Your task to perform on an android device: open chrome privacy settings Image 0: 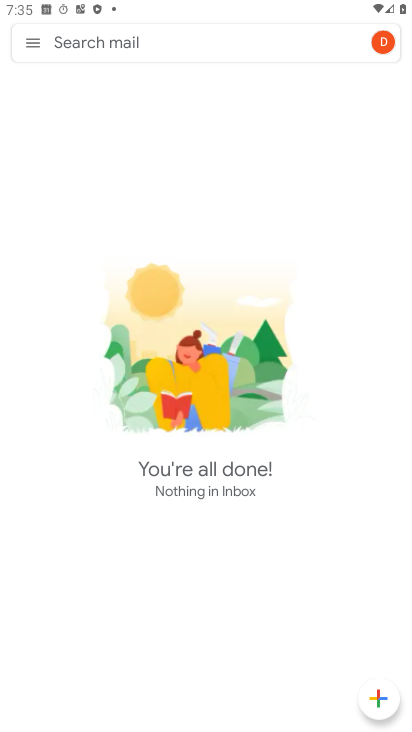
Step 0: press home button
Your task to perform on an android device: open chrome privacy settings Image 1: 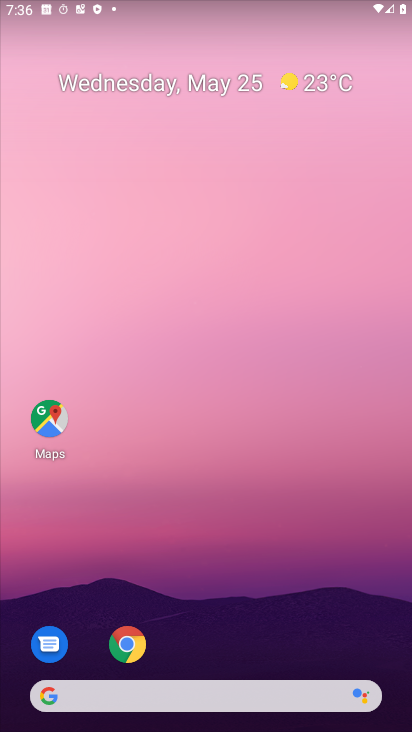
Step 1: drag from (220, 711) to (296, 50)
Your task to perform on an android device: open chrome privacy settings Image 2: 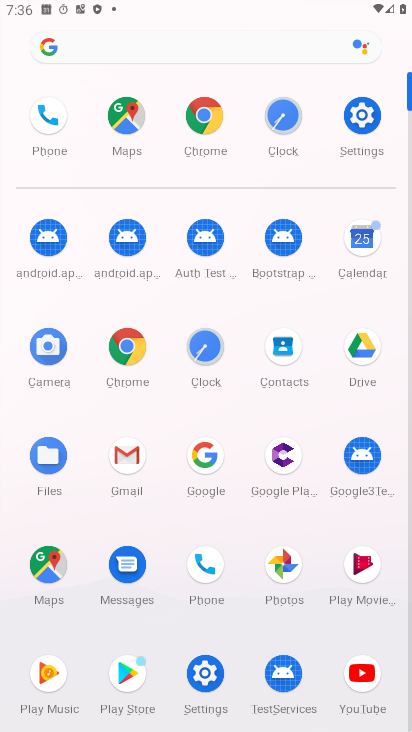
Step 2: click (199, 110)
Your task to perform on an android device: open chrome privacy settings Image 3: 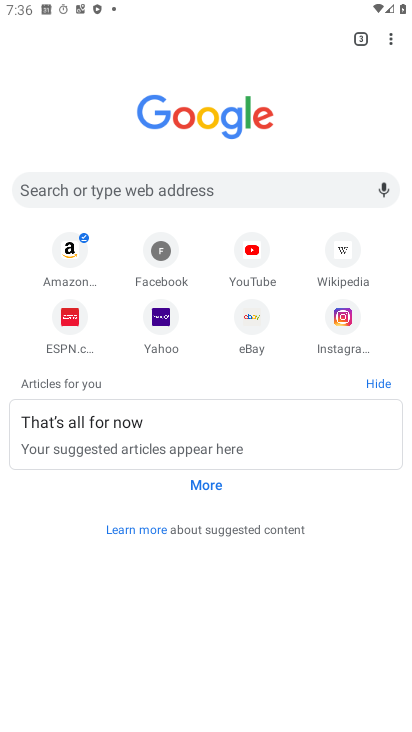
Step 3: click (392, 41)
Your task to perform on an android device: open chrome privacy settings Image 4: 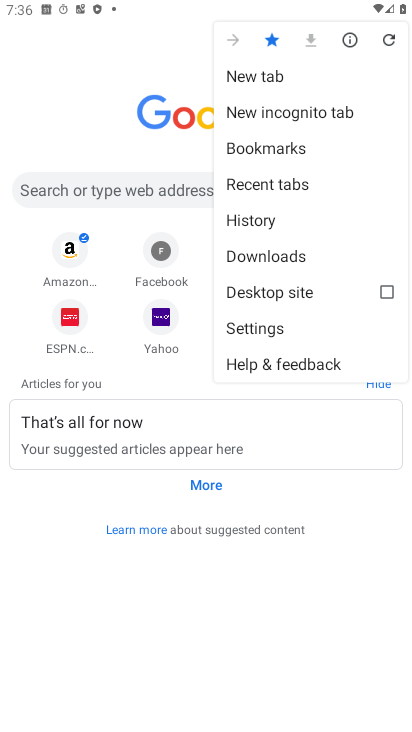
Step 4: click (276, 320)
Your task to perform on an android device: open chrome privacy settings Image 5: 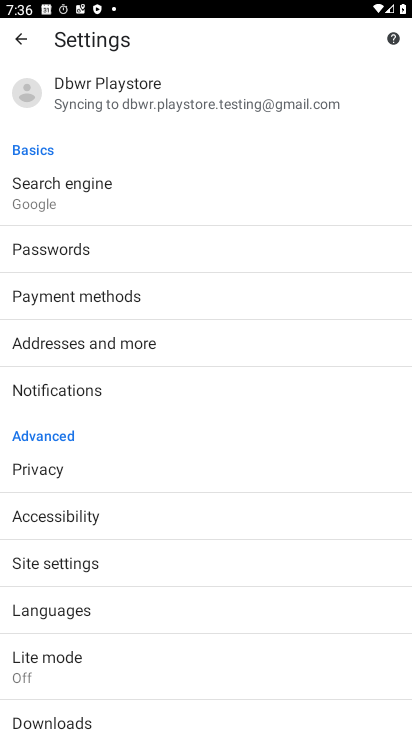
Step 5: click (55, 480)
Your task to perform on an android device: open chrome privacy settings Image 6: 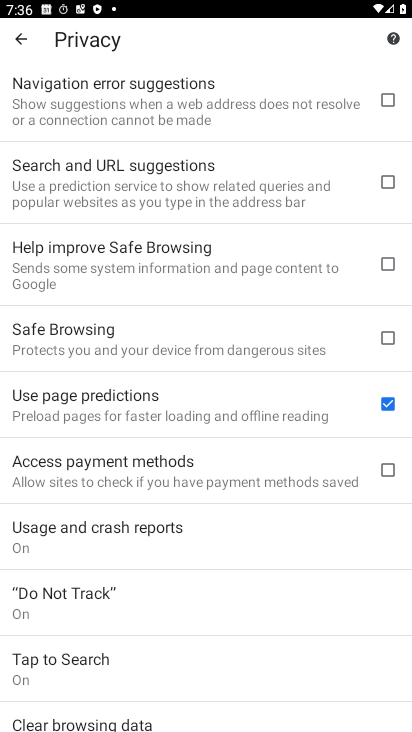
Step 6: task complete